Your task to perform on an android device: Go to calendar. Show me events next week Image 0: 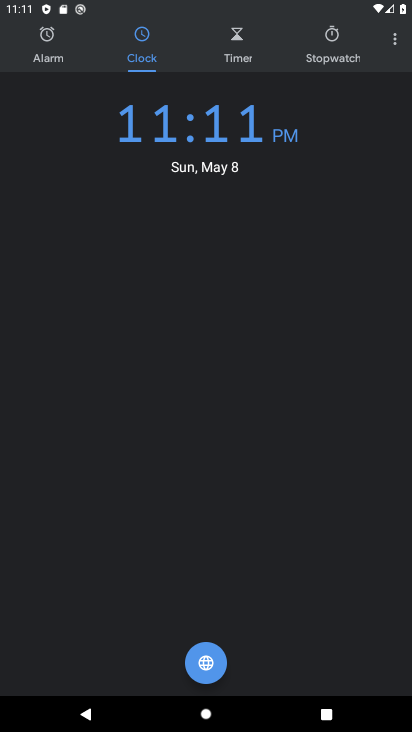
Step 0: press home button
Your task to perform on an android device: Go to calendar. Show me events next week Image 1: 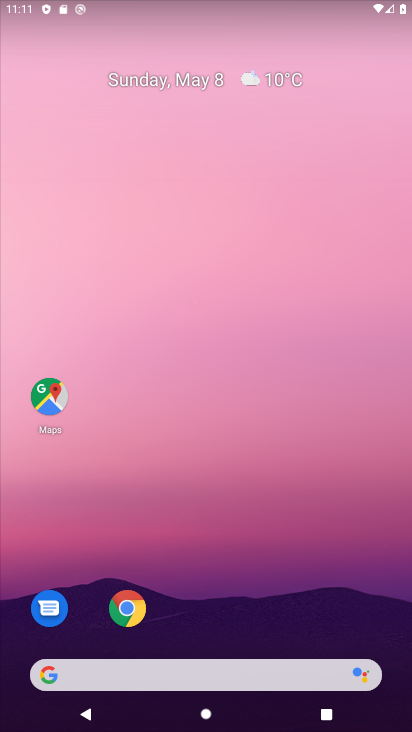
Step 1: drag from (286, 574) to (271, 82)
Your task to perform on an android device: Go to calendar. Show me events next week Image 2: 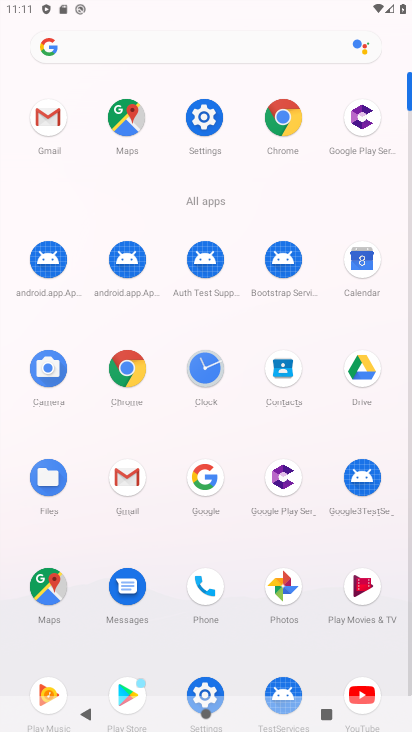
Step 2: click (364, 283)
Your task to perform on an android device: Go to calendar. Show me events next week Image 3: 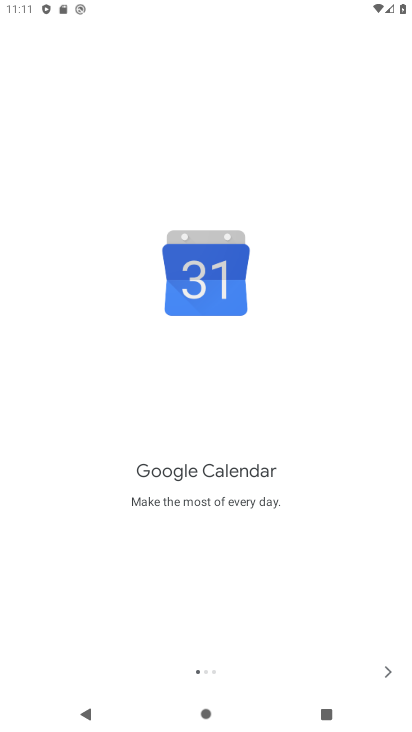
Step 3: click (379, 679)
Your task to perform on an android device: Go to calendar. Show me events next week Image 4: 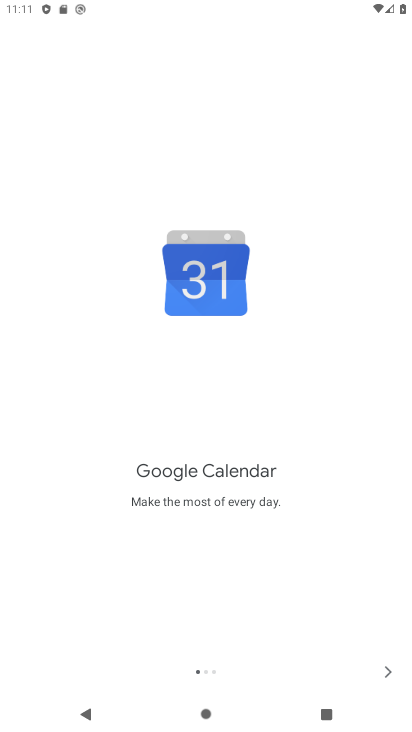
Step 4: click (379, 679)
Your task to perform on an android device: Go to calendar. Show me events next week Image 5: 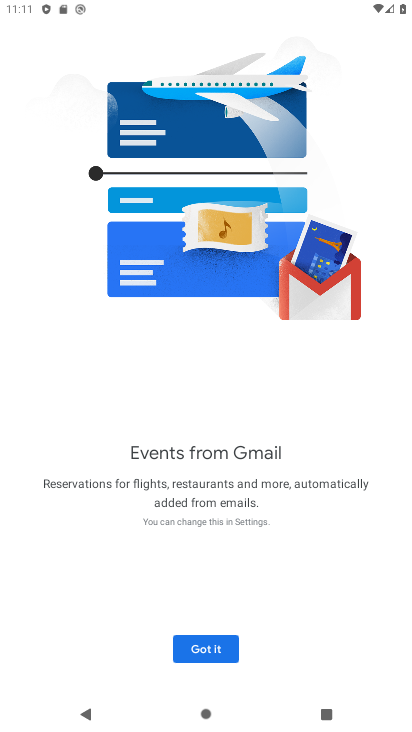
Step 5: click (379, 679)
Your task to perform on an android device: Go to calendar. Show me events next week Image 6: 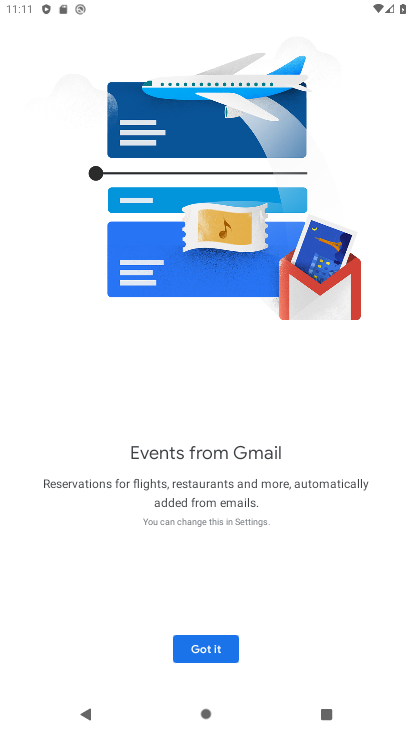
Step 6: click (196, 639)
Your task to perform on an android device: Go to calendar. Show me events next week Image 7: 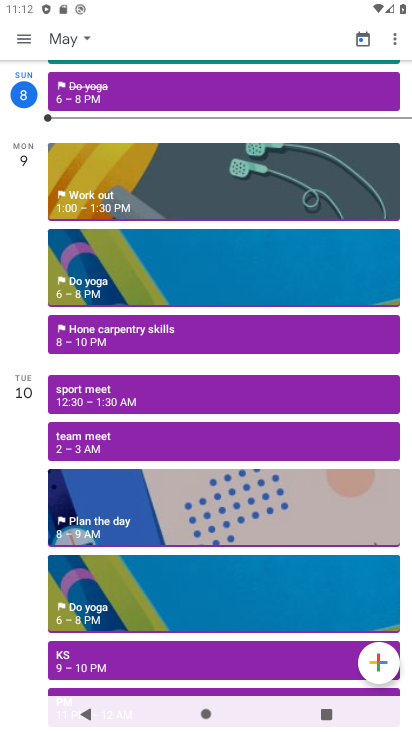
Step 7: click (23, 40)
Your task to perform on an android device: Go to calendar. Show me events next week Image 8: 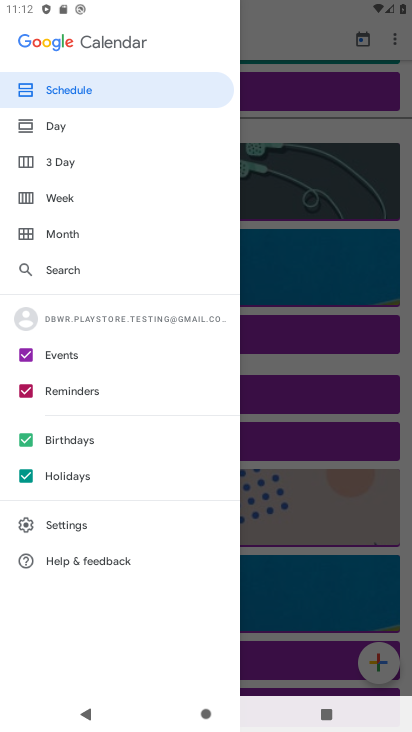
Step 8: click (67, 192)
Your task to perform on an android device: Go to calendar. Show me events next week Image 9: 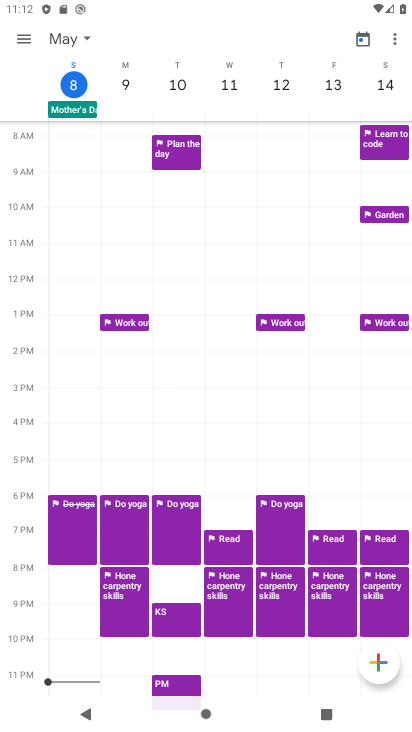
Step 9: task complete